Your task to perform on an android device: Open eBay Image 0: 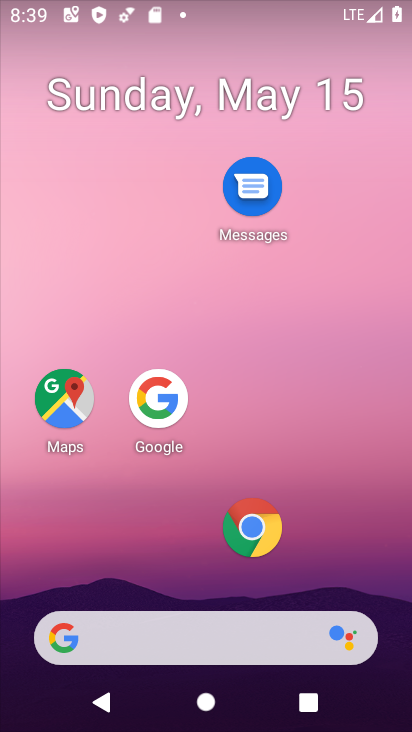
Step 0: drag from (159, 631) to (344, 157)
Your task to perform on an android device: Open eBay Image 1: 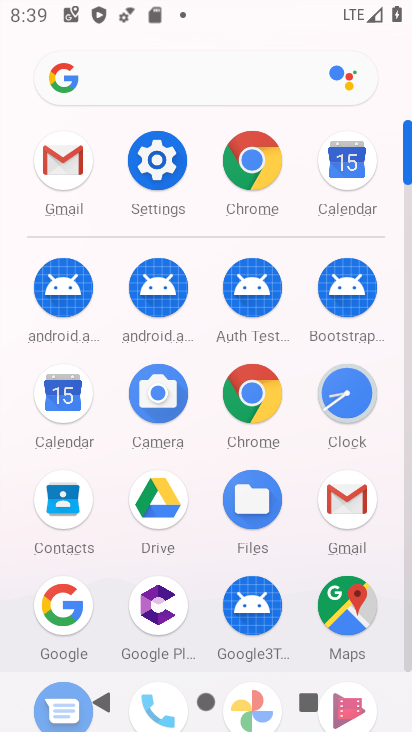
Step 1: click (264, 161)
Your task to perform on an android device: Open eBay Image 2: 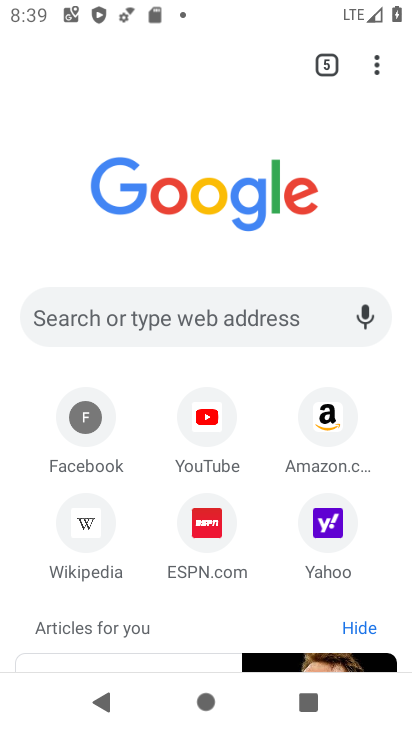
Step 2: click (159, 322)
Your task to perform on an android device: Open eBay Image 3: 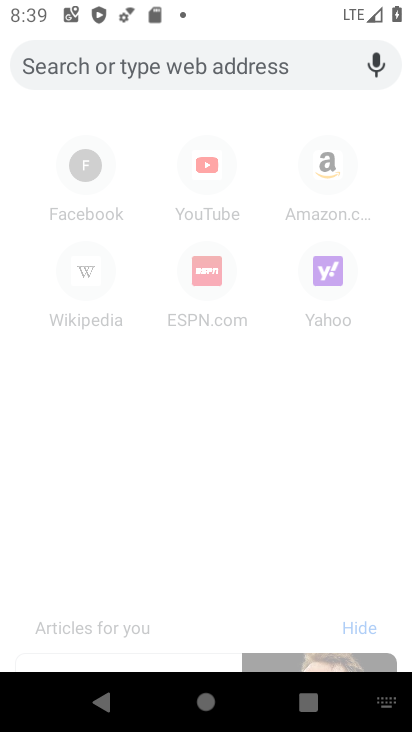
Step 3: type "ebay"
Your task to perform on an android device: Open eBay Image 4: 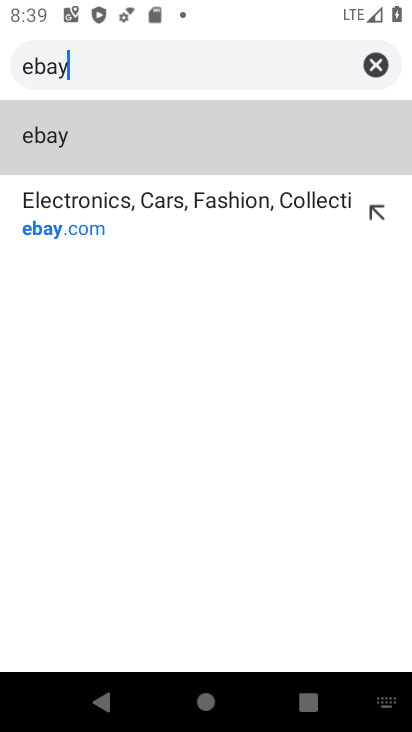
Step 4: click (93, 200)
Your task to perform on an android device: Open eBay Image 5: 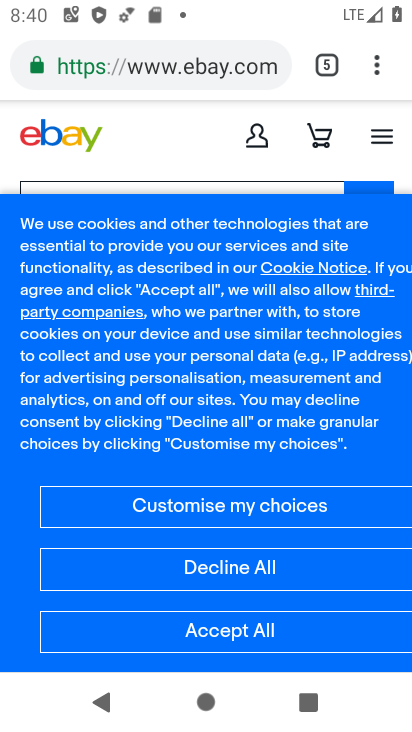
Step 5: task complete